Your task to perform on an android device: turn smart compose on in the gmail app Image 0: 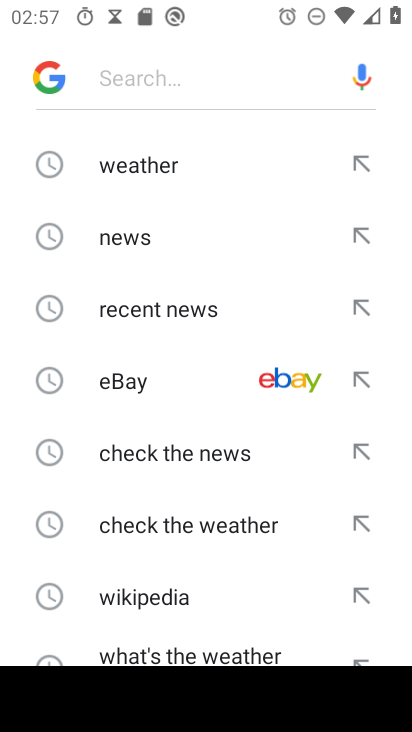
Step 0: press home button
Your task to perform on an android device: turn smart compose on in the gmail app Image 1: 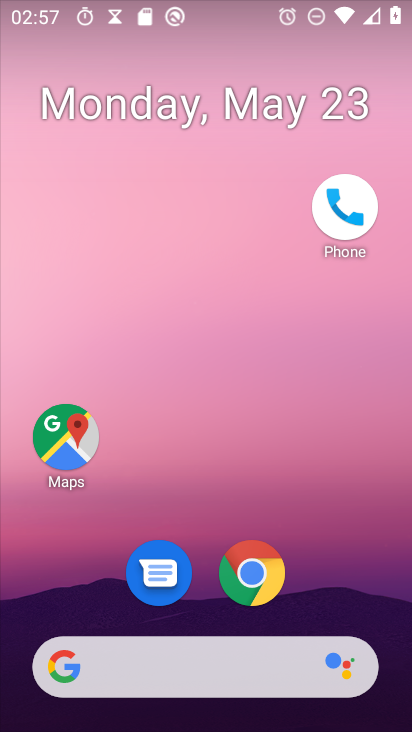
Step 1: drag from (172, 679) to (279, 253)
Your task to perform on an android device: turn smart compose on in the gmail app Image 2: 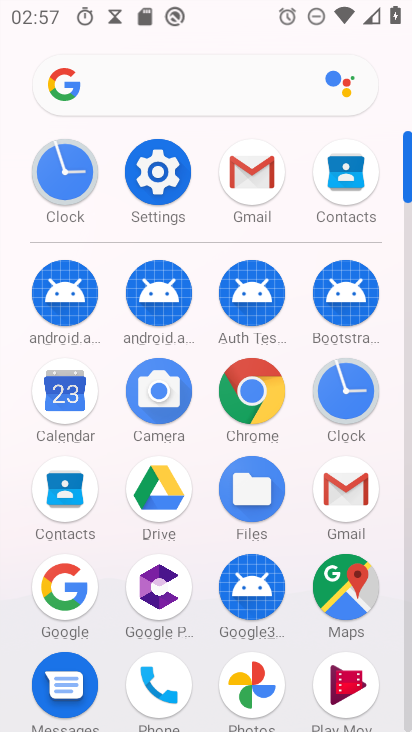
Step 2: click (269, 182)
Your task to perform on an android device: turn smart compose on in the gmail app Image 3: 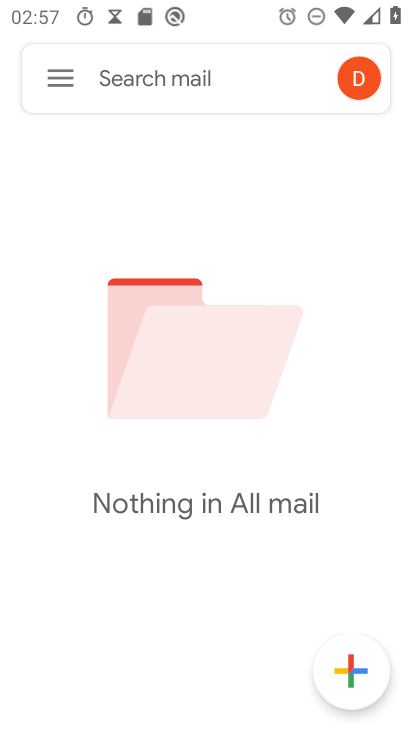
Step 3: click (56, 83)
Your task to perform on an android device: turn smart compose on in the gmail app Image 4: 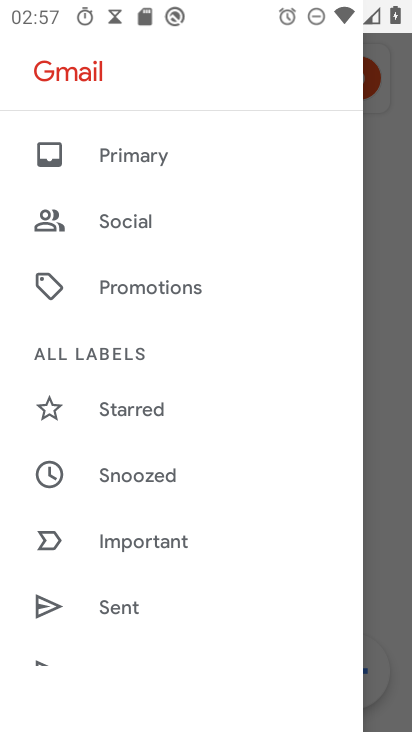
Step 4: drag from (220, 654) to (286, 159)
Your task to perform on an android device: turn smart compose on in the gmail app Image 5: 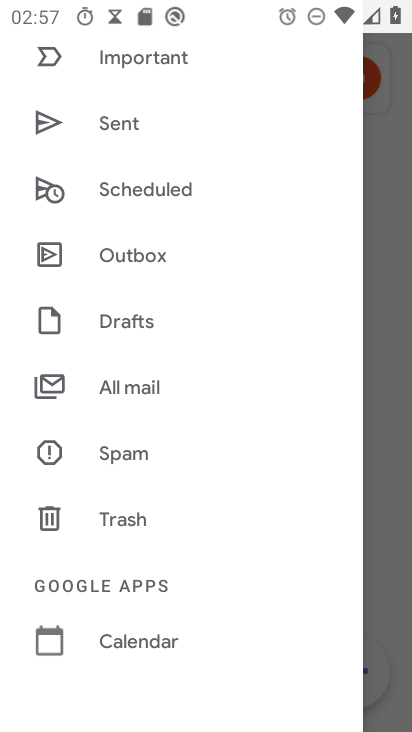
Step 5: drag from (205, 631) to (298, 202)
Your task to perform on an android device: turn smart compose on in the gmail app Image 6: 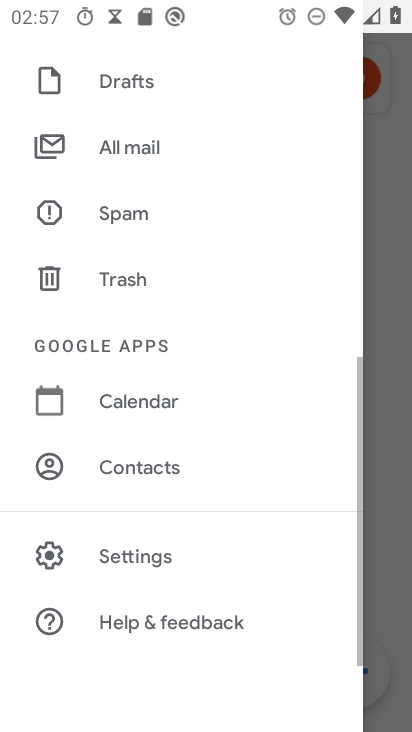
Step 6: click (150, 554)
Your task to perform on an android device: turn smart compose on in the gmail app Image 7: 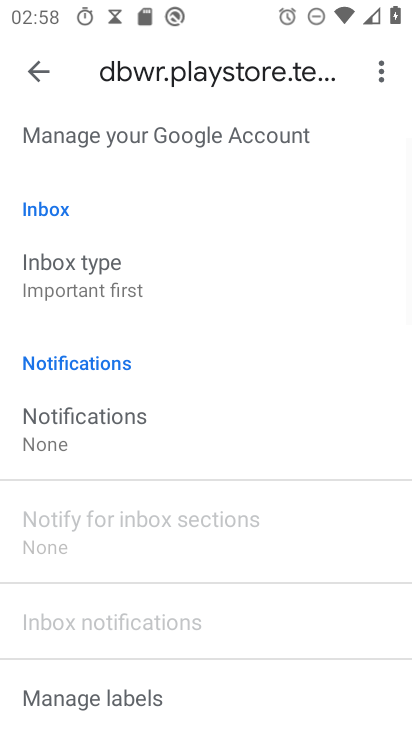
Step 7: task complete